Your task to perform on an android device: turn off javascript in the chrome app Image 0: 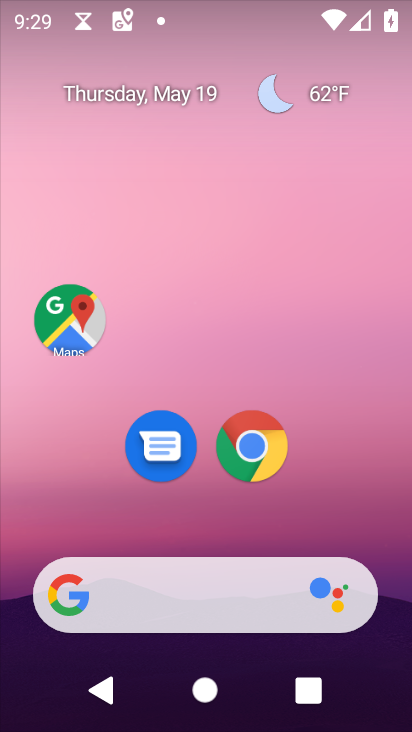
Step 0: click (248, 439)
Your task to perform on an android device: turn off javascript in the chrome app Image 1: 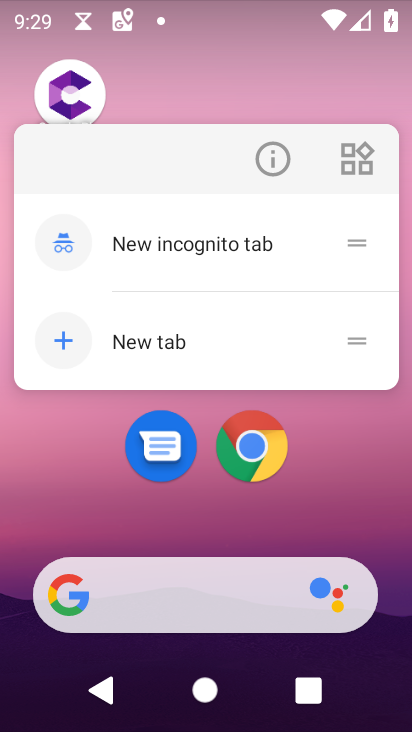
Step 1: click (247, 437)
Your task to perform on an android device: turn off javascript in the chrome app Image 2: 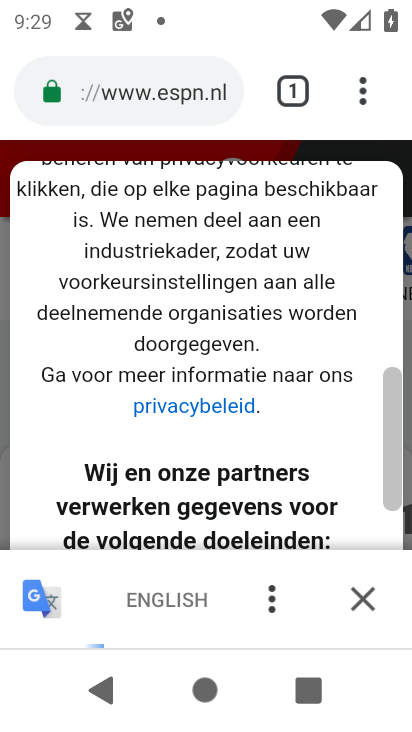
Step 2: click (354, 80)
Your task to perform on an android device: turn off javascript in the chrome app Image 3: 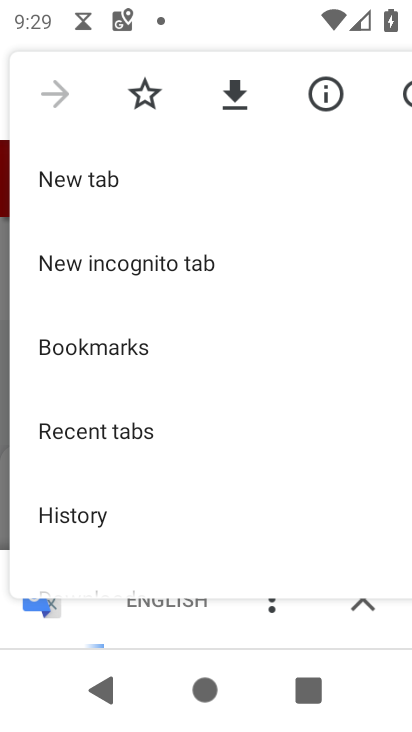
Step 3: drag from (229, 511) to (299, 238)
Your task to perform on an android device: turn off javascript in the chrome app Image 4: 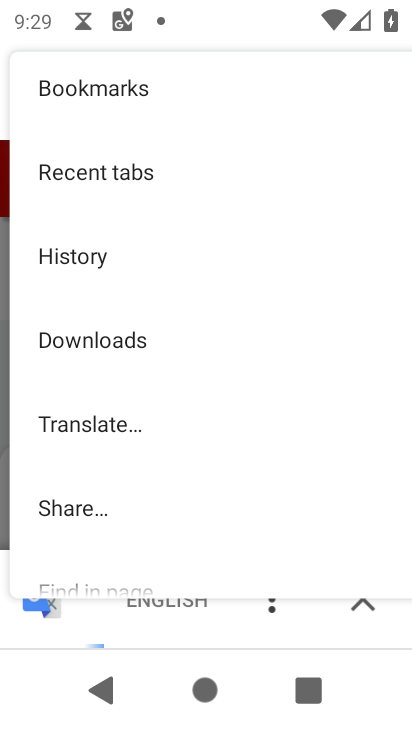
Step 4: drag from (168, 509) to (195, 323)
Your task to perform on an android device: turn off javascript in the chrome app Image 5: 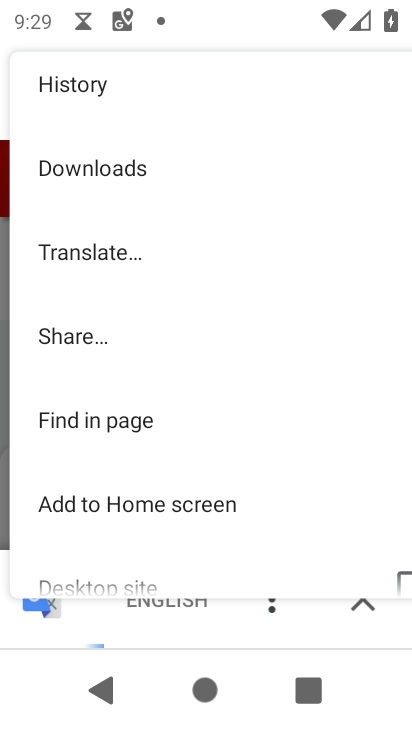
Step 5: drag from (204, 556) to (257, 327)
Your task to perform on an android device: turn off javascript in the chrome app Image 6: 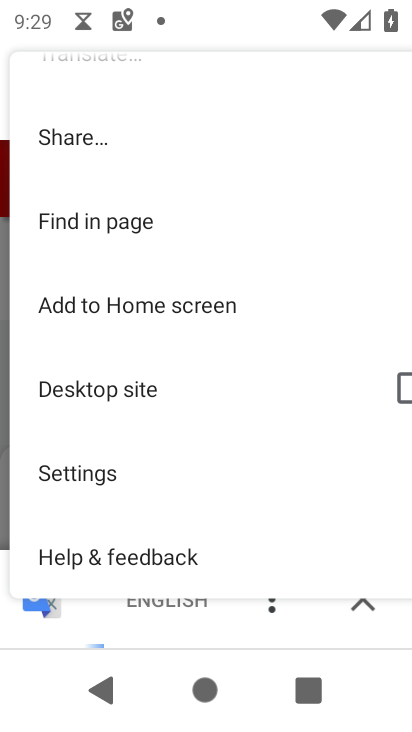
Step 6: click (116, 477)
Your task to perform on an android device: turn off javascript in the chrome app Image 7: 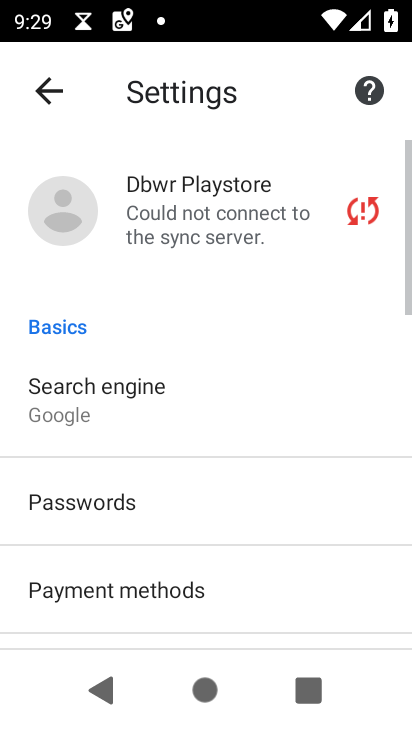
Step 7: drag from (139, 544) to (196, 257)
Your task to perform on an android device: turn off javascript in the chrome app Image 8: 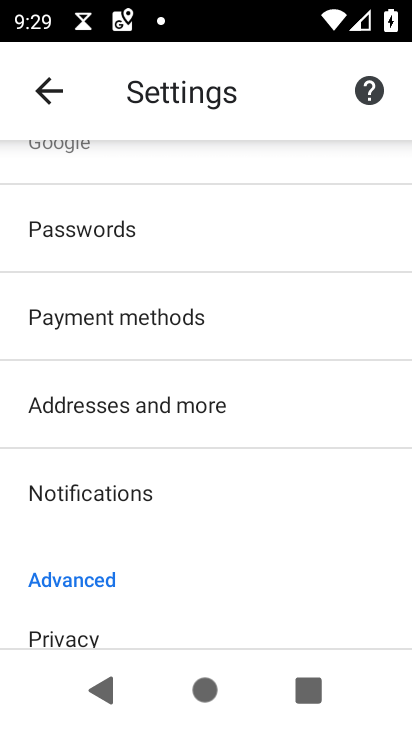
Step 8: drag from (216, 567) to (274, 326)
Your task to perform on an android device: turn off javascript in the chrome app Image 9: 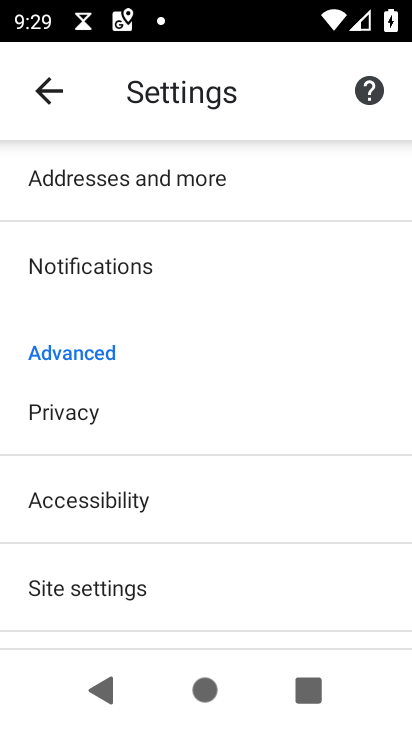
Step 9: click (95, 576)
Your task to perform on an android device: turn off javascript in the chrome app Image 10: 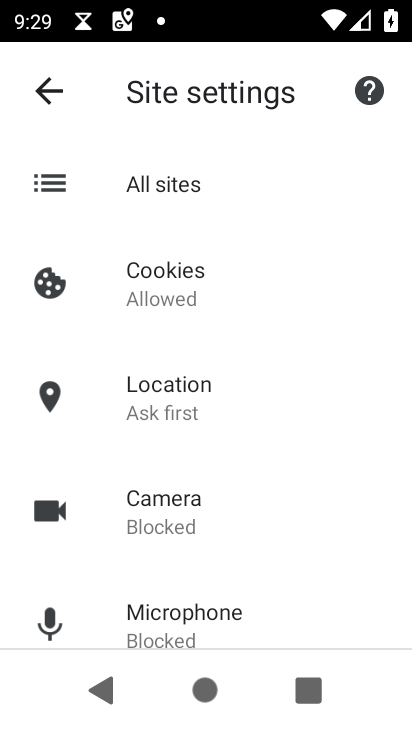
Step 10: drag from (167, 603) to (228, 377)
Your task to perform on an android device: turn off javascript in the chrome app Image 11: 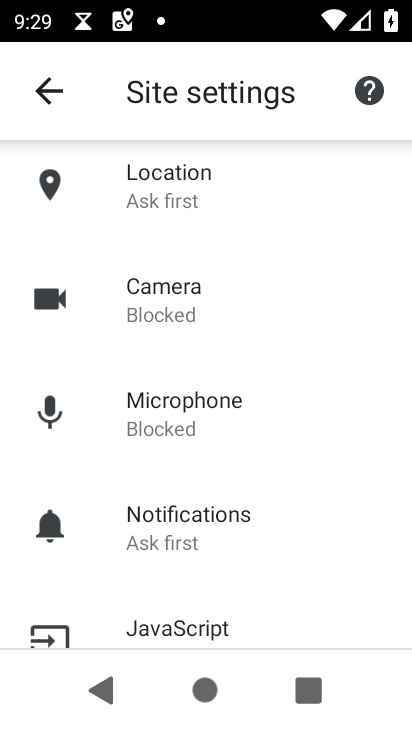
Step 11: click (186, 620)
Your task to perform on an android device: turn off javascript in the chrome app Image 12: 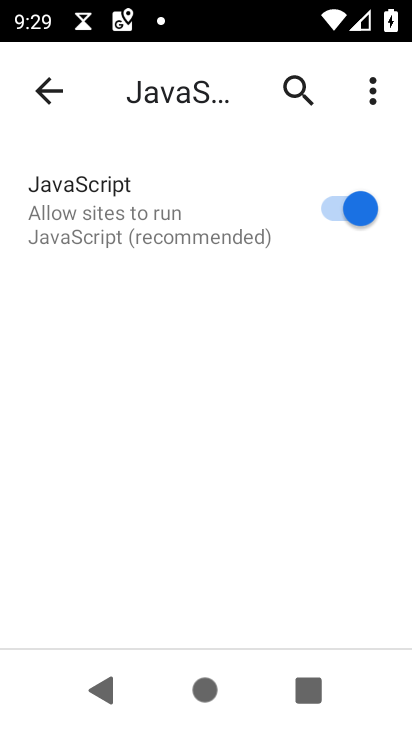
Step 12: click (363, 206)
Your task to perform on an android device: turn off javascript in the chrome app Image 13: 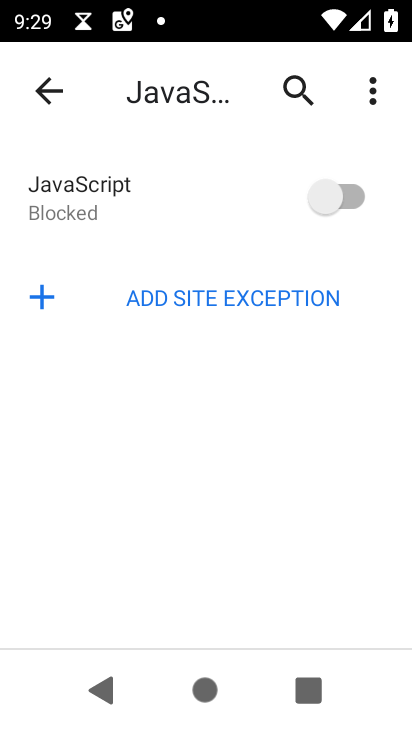
Step 13: task complete